Your task to perform on an android device: Go to CNN.com Image 0: 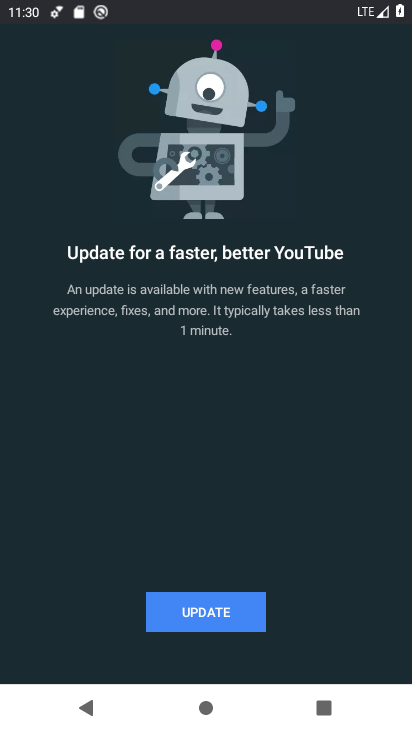
Step 0: drag from (285, 16) to (285, 198)
Your task to perform on an android device: Go to CNN.com Image 1: 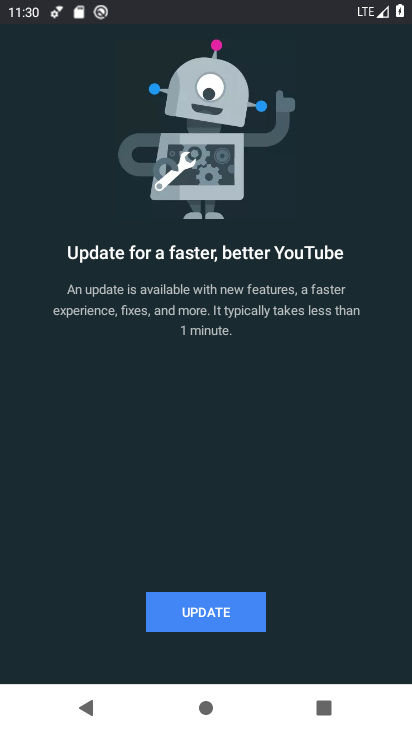
Step 1: press home button
Your task to perform on an android device: Go to CNN.com Image 2: 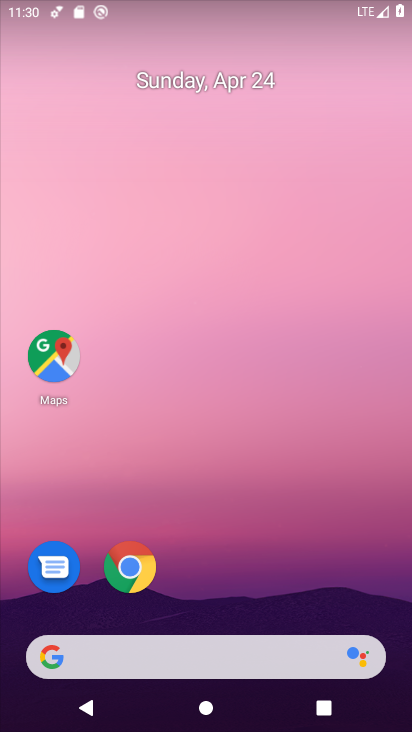
Step 2: click (141, 571)
Your task to perform on an android device: Go to CNN.com Image 3: 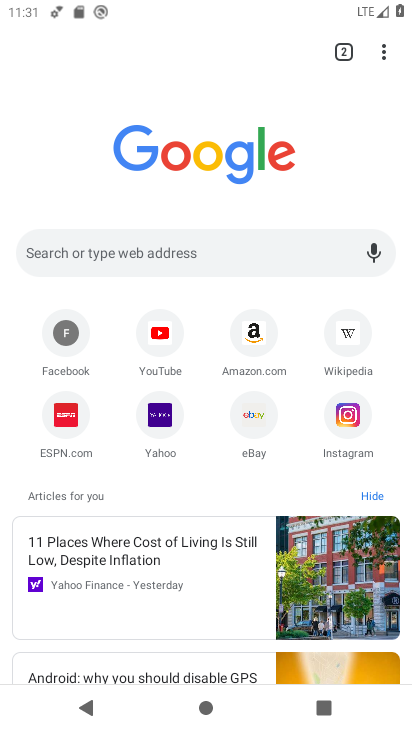
Step 3: click (225, 262)
Your task to perform on an android device: Go to CNN.com Image 4: 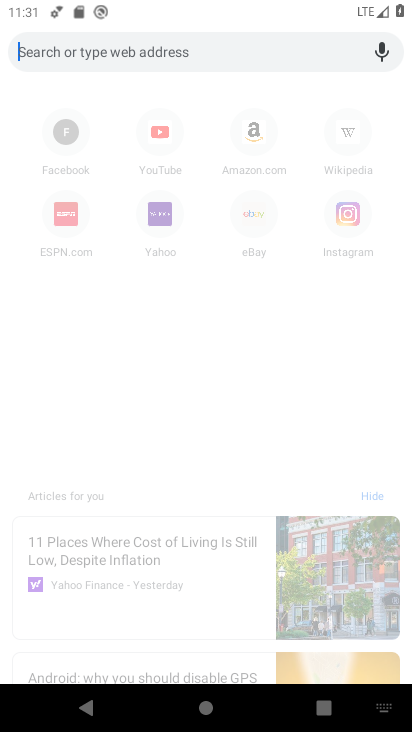
Step 4: type "cnn.com"
Your task to perform on an android device: Go to CNN.com Image 5: 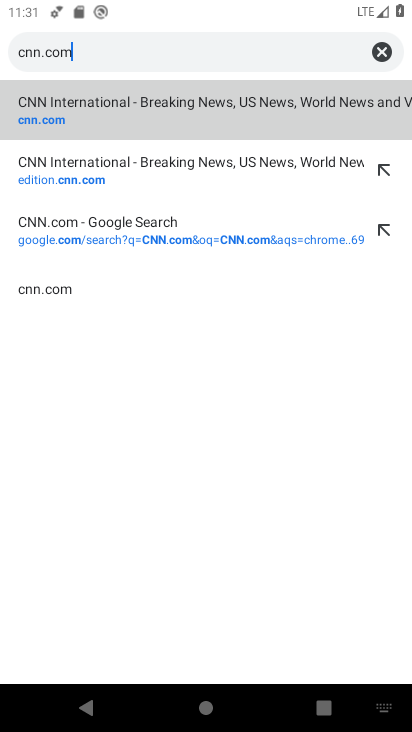
Step 5: click (288, 118)
Your task to perform on an android device: Go to CNN.com Image 6: 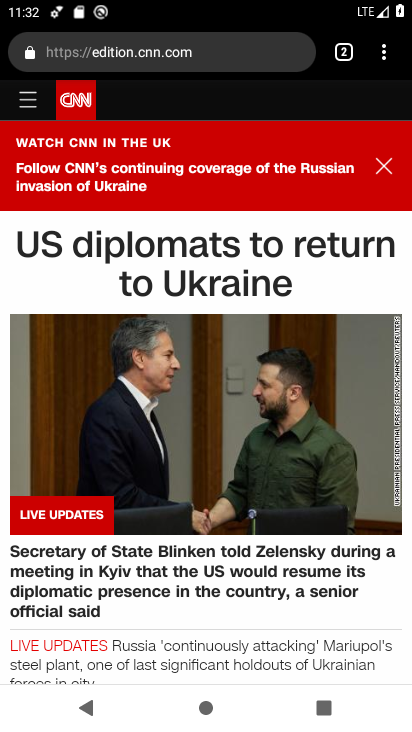
Step 6: click (288, 118)
Your task to perform on an android device: Go to CNN.com Image 7: 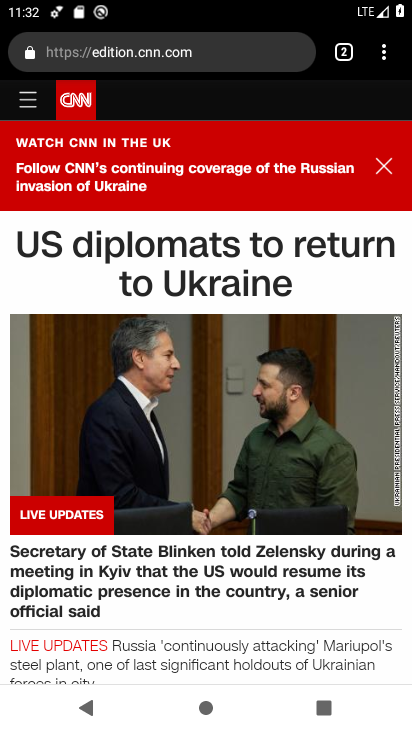
Step 7: task complete